Your task to perform on an android device: clear all cookies in the chrome app Image 0: 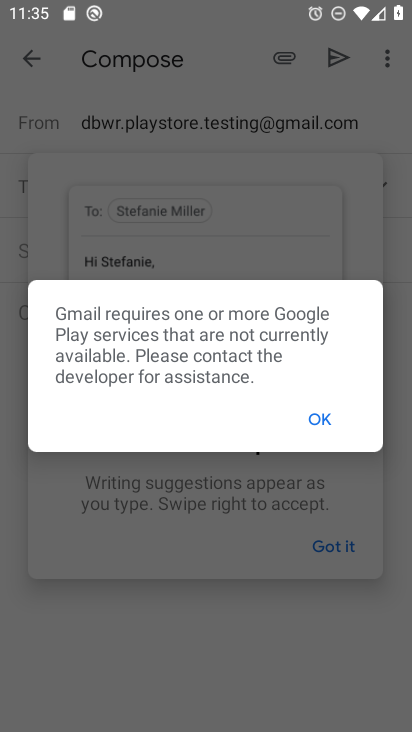
Step 0: press home button
Your task to perform on an android device: clear all cookies in the chrome app Image 1: 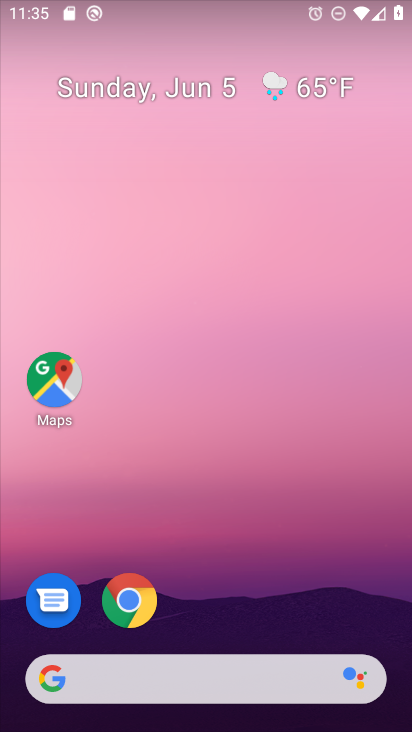
Step 1: drag from (392, 629) to (309, 73)
Your task to perform on an android device: clear all cookies in the chrome app Image 2: 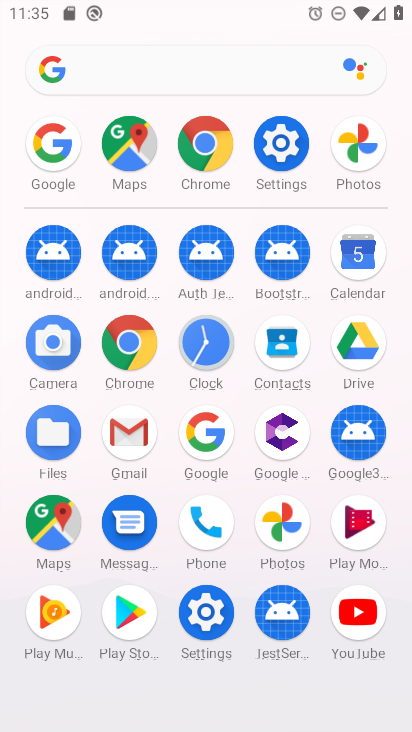
Step 2: click (130, 341)
Your task to perform on an android device: clear all cookies in the chrome app Image 3: 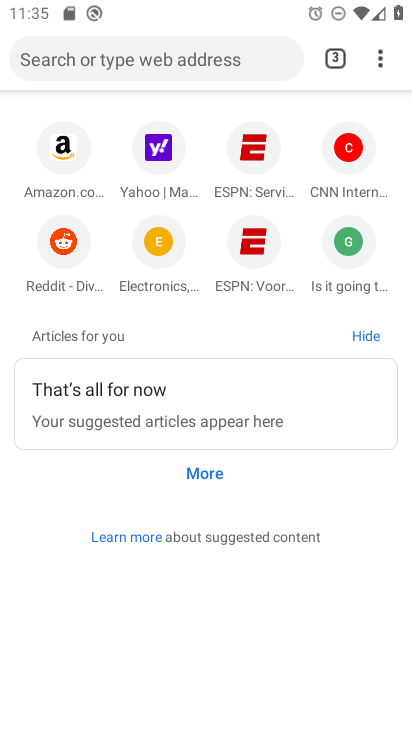
Step 3: click (382, 60)
Your task to perform on an android device: clear all cookies in the chrome app Image 4: 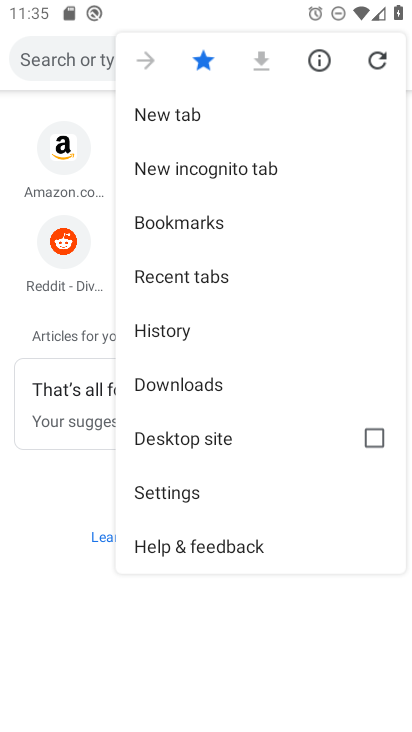
Step 4: click (184, 325)
Your task to perform on an android device: clear all cookies in the chrome app Image 5: 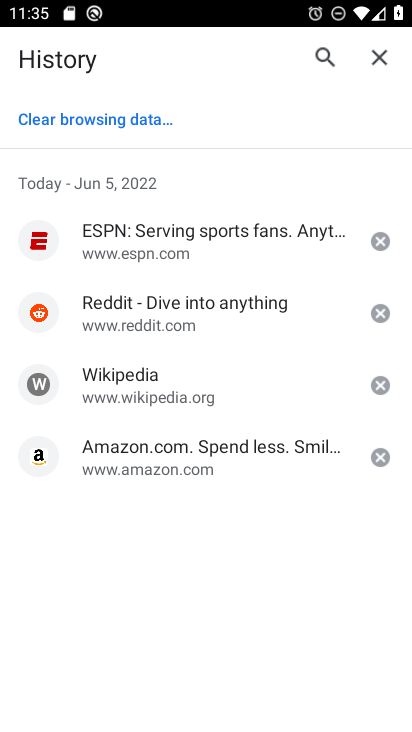
Step 5: click (107, 118)
Your task to perform on an android device: clear all cookies in the chrome app Image 6: 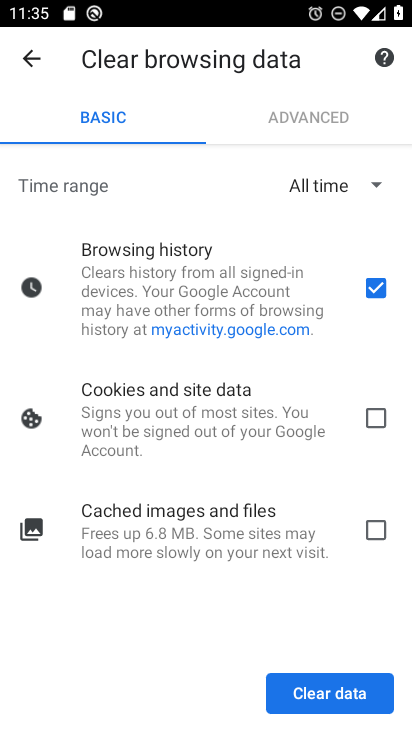
Step 6: click (380, 414)
Your task to perform on an android device: clear all cookies in the chrome app Image 7: 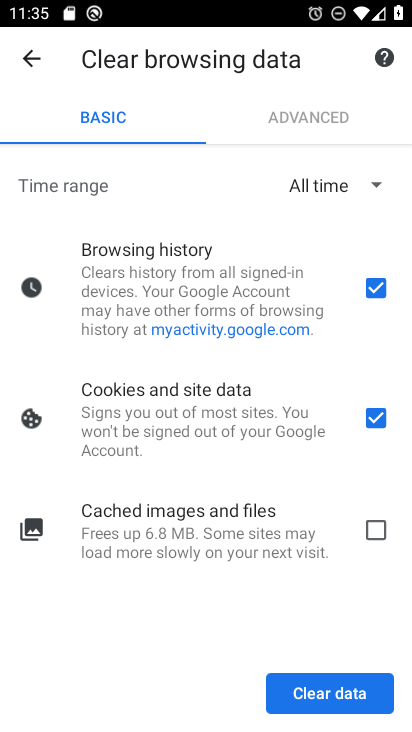
Step 7: click (317, 692)
Your task to perform on an android device: clear all cookies in the chrome app Image 8: 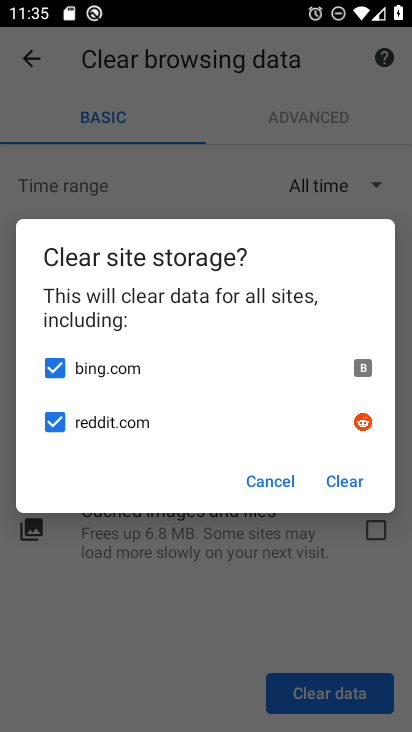
Step 8: click (330, 472)
Your task to perform on an android device: clear all cookies in the chrome app Image 9: 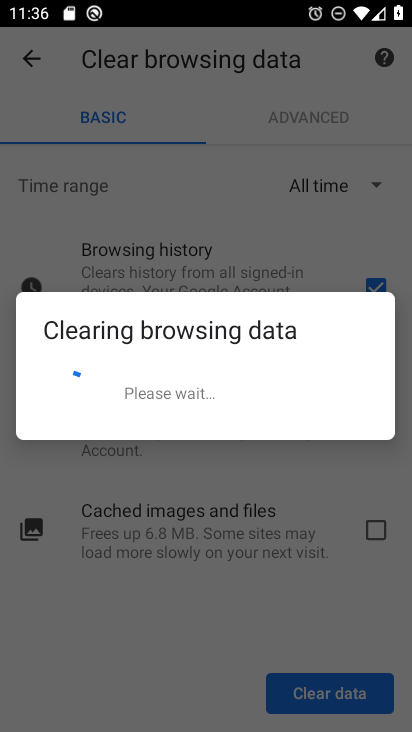
Step 9: task complete